Your task to perform on an android device: Play the last video I watched on Youtube Image 0: 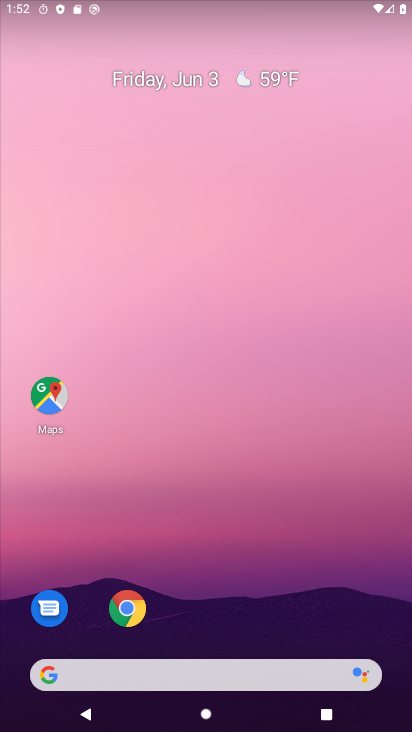
Step 0: drag from (234, 668) to (264, 37)
Your task to perform on an android device: Play the last video I watched on Youtube Image 1: 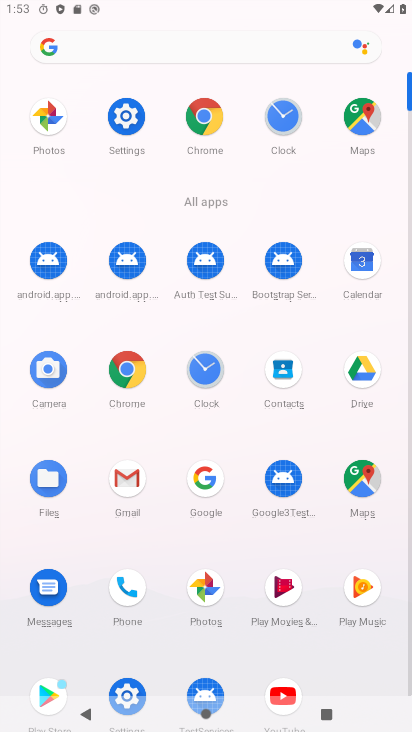
Step 1: click (280, 684)
Your task to perform on an android device: Play the last video I watched on Youtube Image 2: 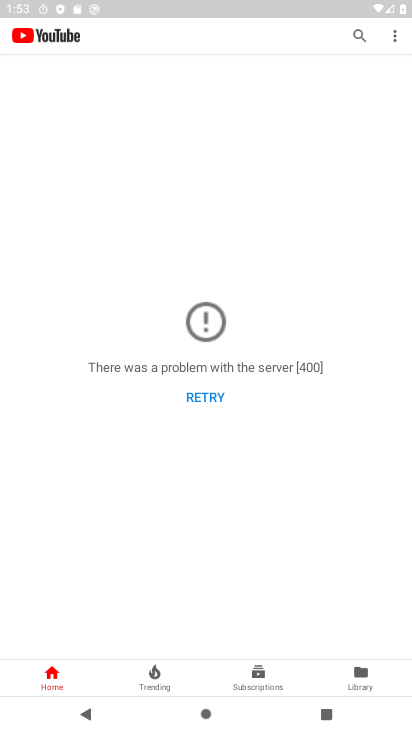
Step 2: task complete